Your task to perform on an android device: turn on showing notifications on the lock screen Image 0: 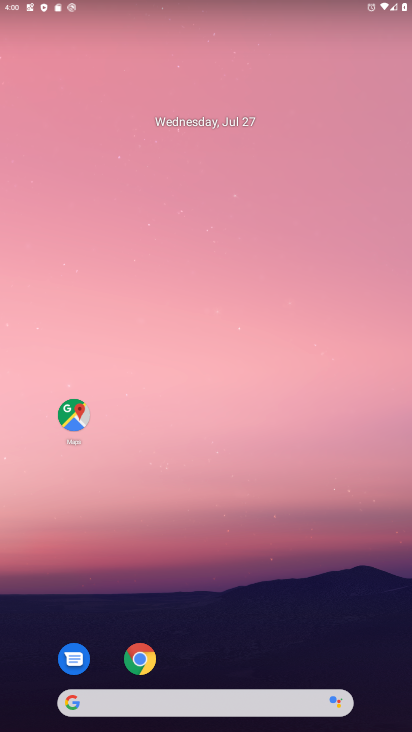
Step 0: drag from (283, 620) to (381, 2)
Your task to perform on an android device: turn on showing notifications on the lock screen Image 1: 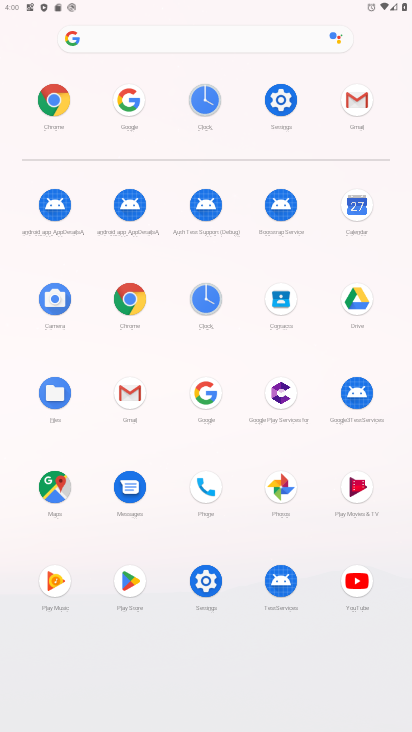
Step 1: click (279, 106)
Your task to perform on an android device: turn on showing notifications on the lock screen Image 2: 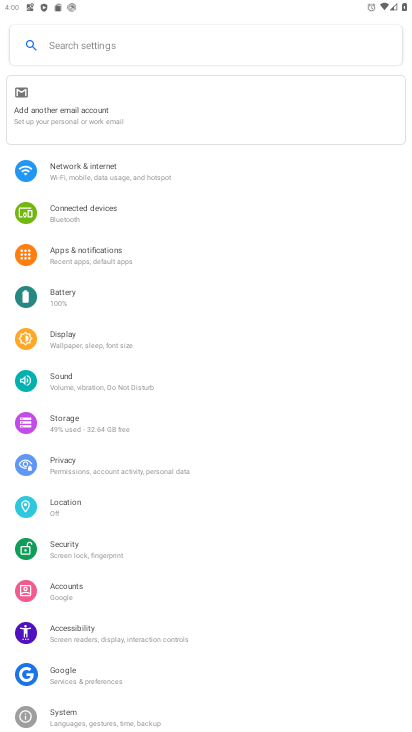
Step 2: click (84, 253)
Your task to perform on an android device: turn on showing notifications on the lock screen Image 3: 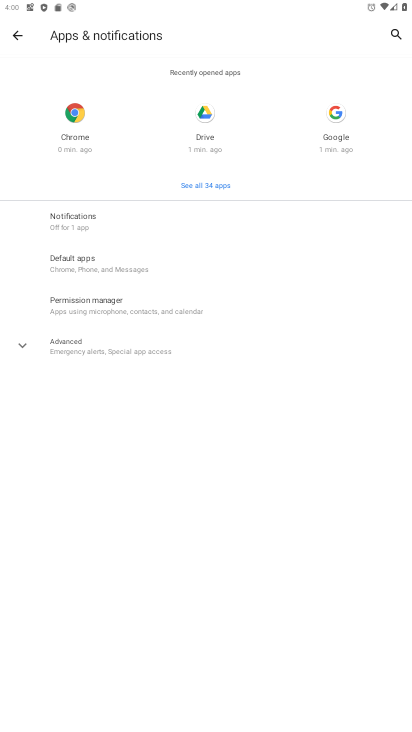
Step 3: click (96, 221)
Your task to perform on an android device: turn on showing notifications on the lock screen Image 4: 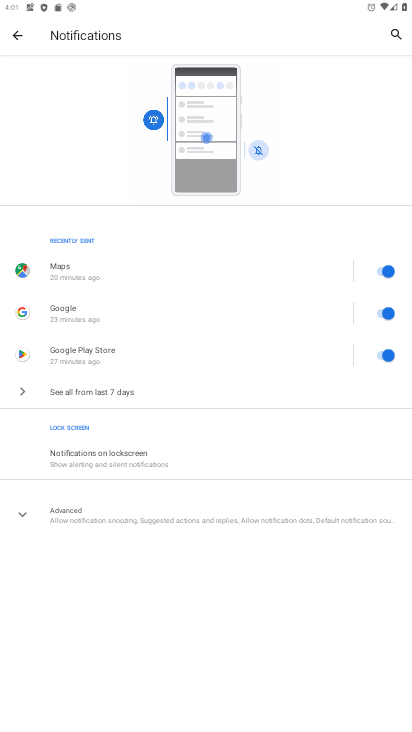
Step 4: click (62, 444)
Your task to perform on an android device: turn on showing notifications on the lock screen Image 5: 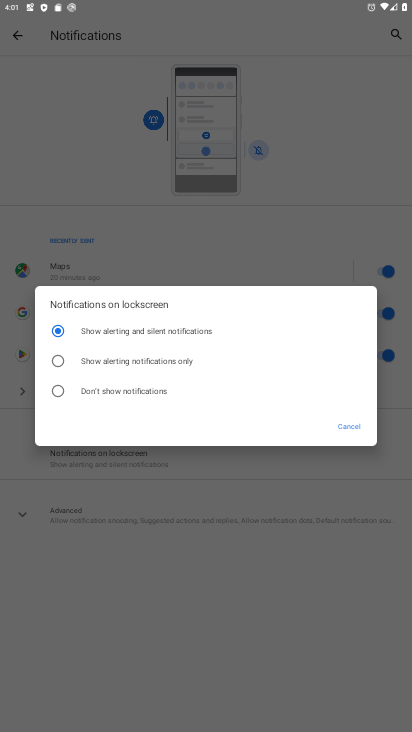
Step 5: click (118, 333)
Your task to perform on an android device: turn on showing notifications on the lock screen Image 6: 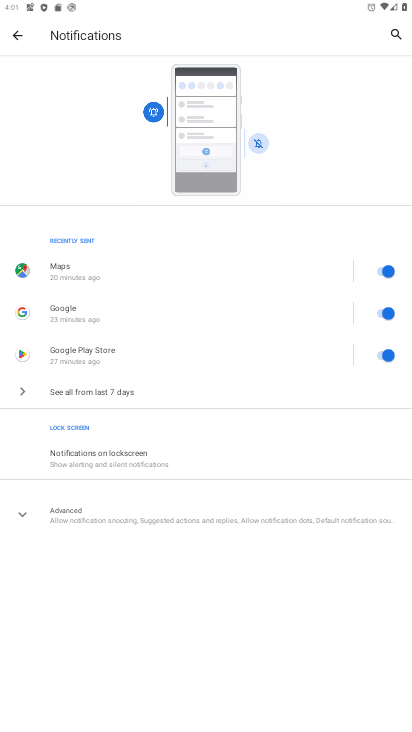
Step 6: task complete